Your task to perform on an android device: Search for the best websites on the internet Image 0: 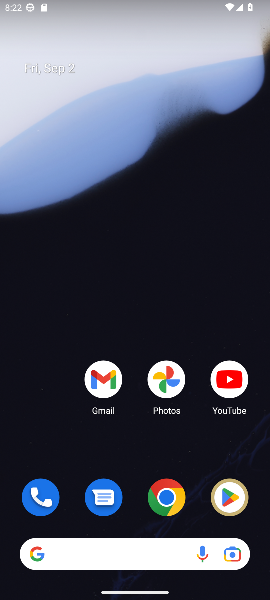
Step 0: drag from (136, 495) to (131, 151)
Your task to perform on an android device: Search for the best websites on the internet Image 1: 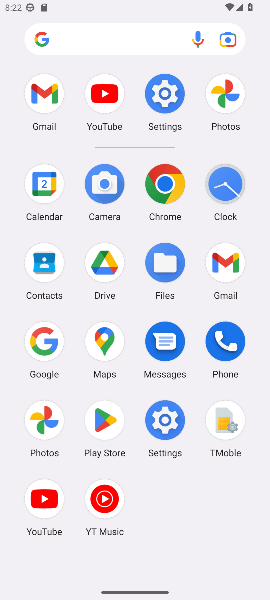
Step 1: click (44, 348)
Your task to perform on an android device: Search for the best websites on the internet Image 2: 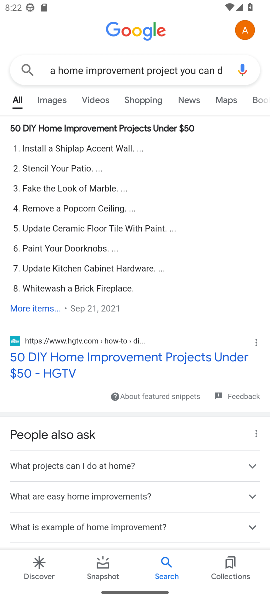
Step 2: click (101, 71)
Your task to perform on an android device: Search for the best websites on the internet Image 3: 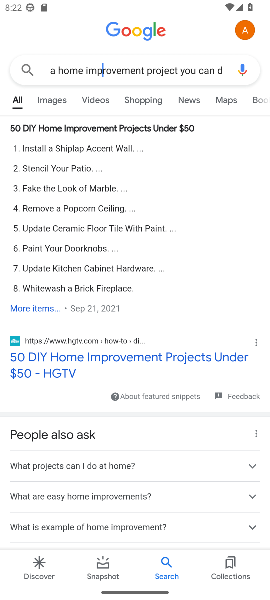
Step 3: click (101, 71)
Your task to perform on an android device: Search for the best websites on the internet Image 4: 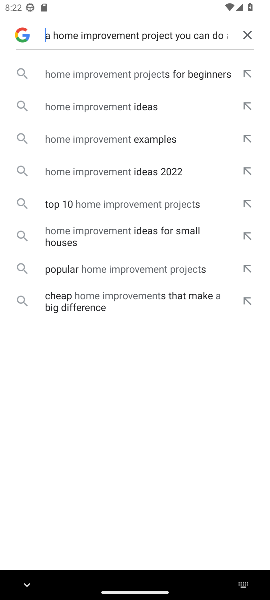
Step 4: click (249, 35)
Your task to perform on an android device: Search for the best websites on the internet Image 5: 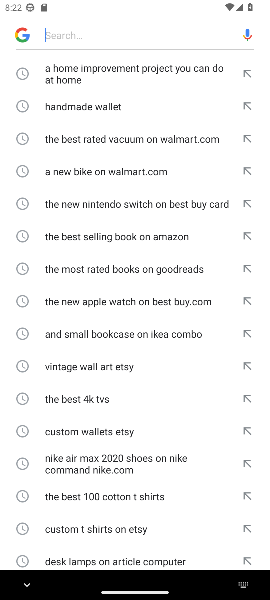
Step 5: click (162, 30)
Your task to perform on an android device: Search for the best websites on the internet Image 6: 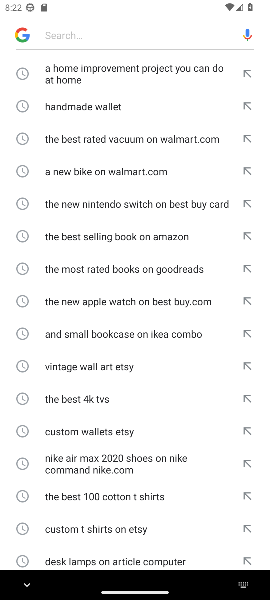
Step 6: type " the best websites on the internet"
Your task to perform on an android device: Search for the best websites on the internet Image 7: 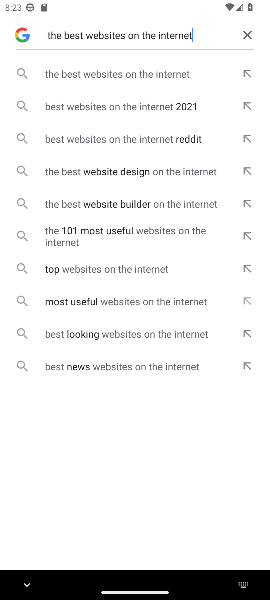
Step 7: click (171, 74)
Your task to perform on an android device: Search for the best websites on the internet Image 8: 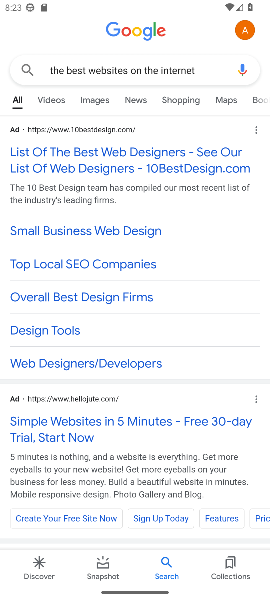
Step 8: click (77, 430)
Your task to perform on an android device: Search for the best websites on the internet Image 9: 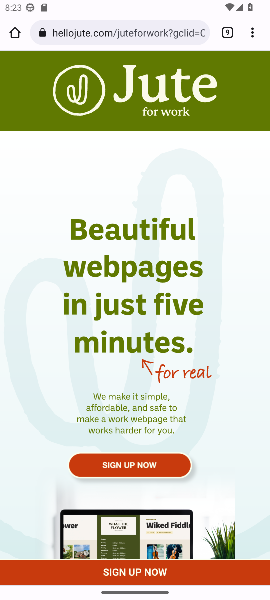
Step 9: task complete